Your task to perform on an android device: toggle wifi Image 0: 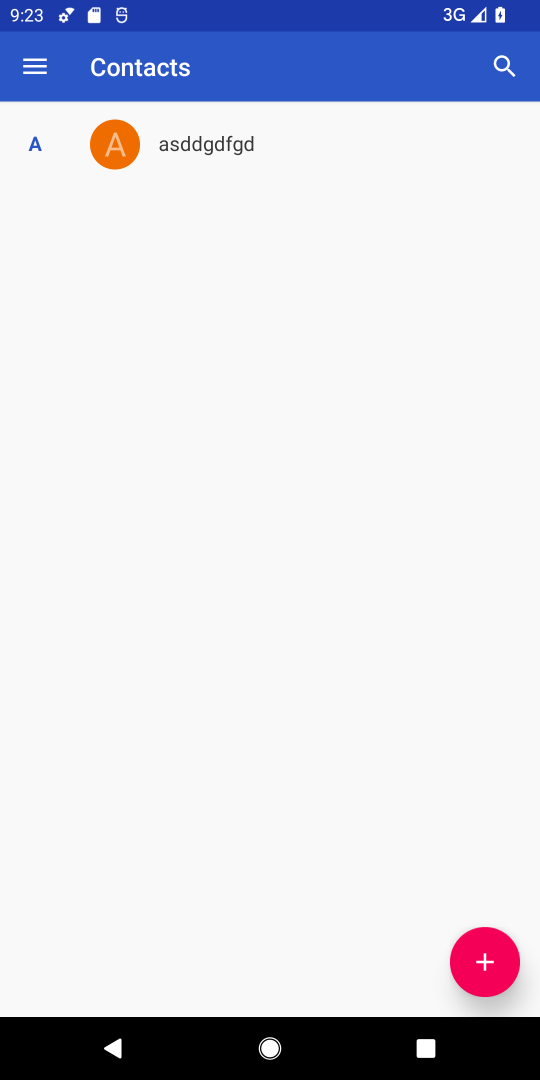
Step 0: drag from (359, 12) to (292, 649)
Your task to perform on an android device: toggle wifi Image 1: 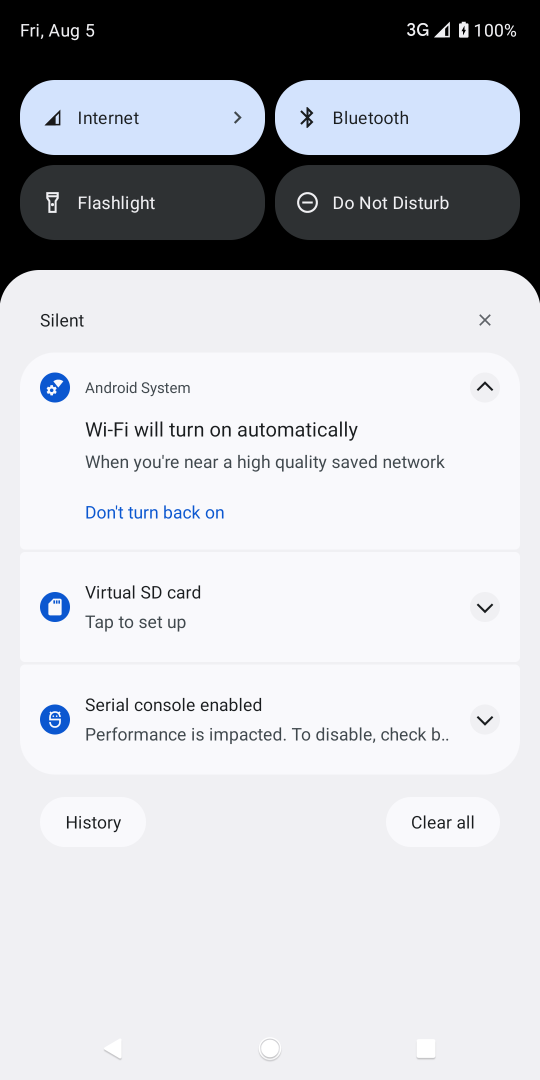
Step 1: click (111, 115)
Your task to perform on an android device: toggle wifi Image 2: 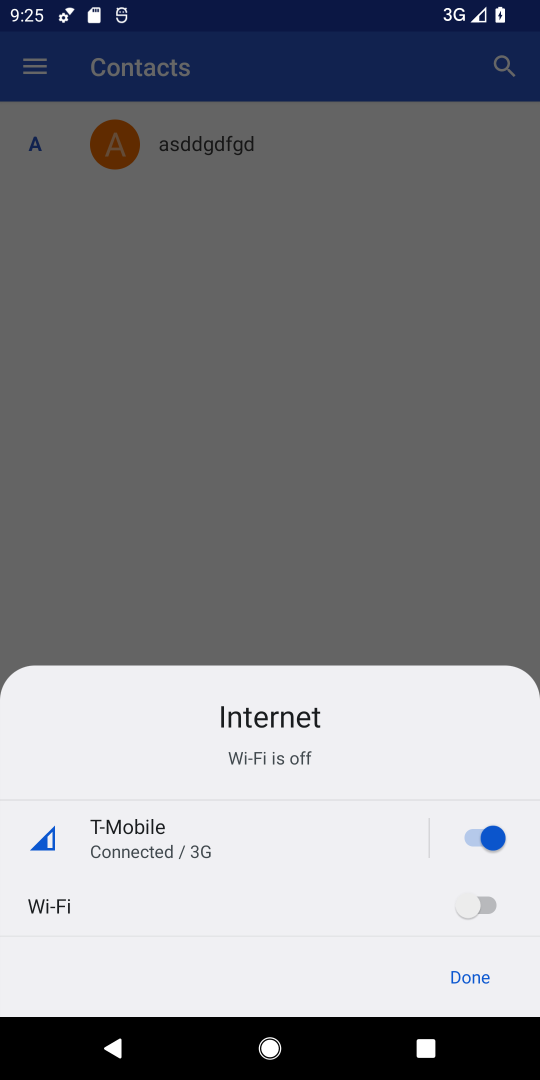
Step 2: click (466, 907)
Your task to perform on an android device: toggle wifi Image 3: 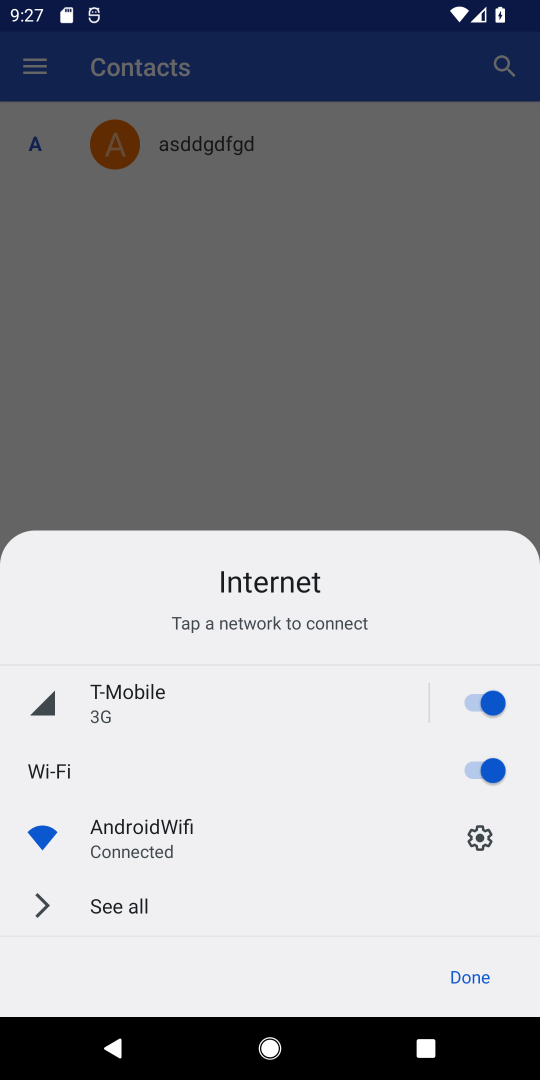
Step 3: task complete